Your task to perform on an android device: Open location settings Image 0: 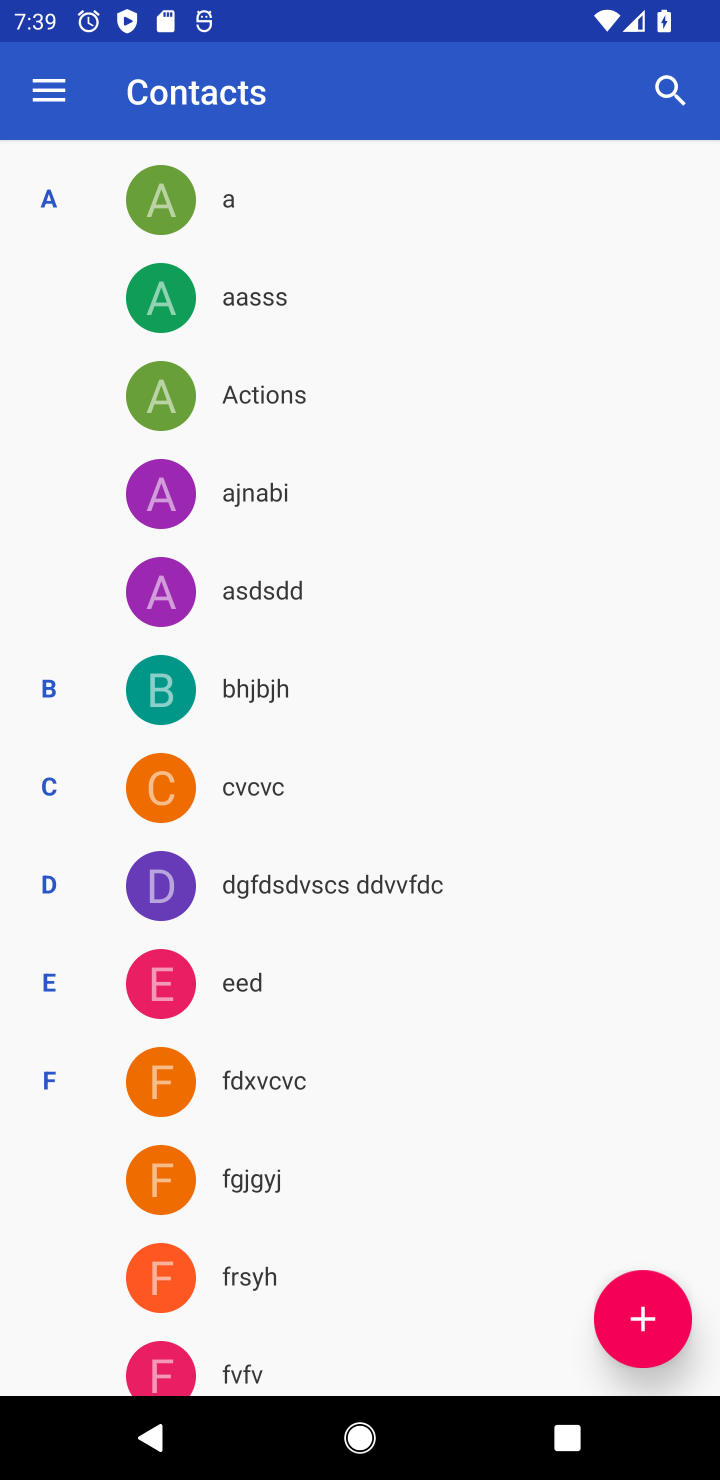
Step 0: press home button
Your task to perform on an android device: Open location settings Image 1: 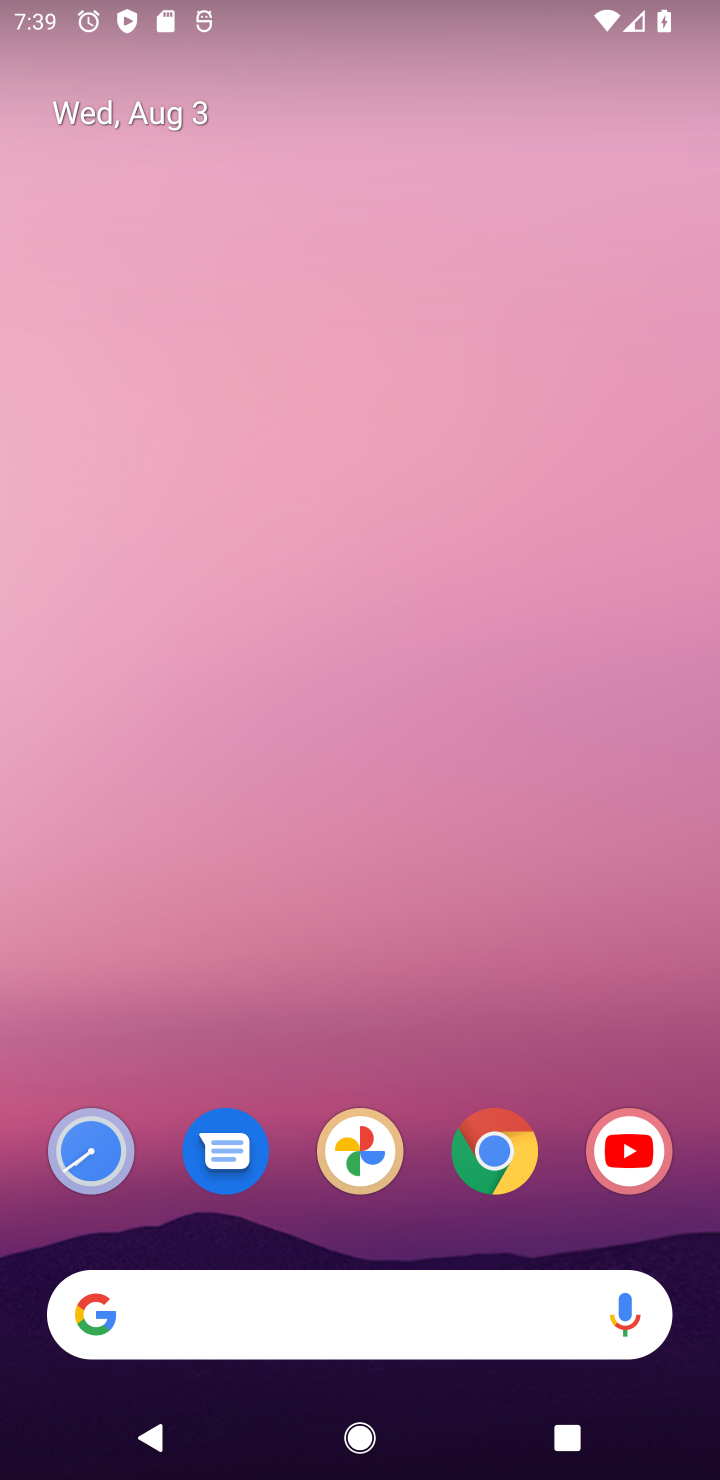
Step 1: drag from (419, 1013) to (585, 442)
Your task to perform on an android device: Open location settings Image 2: 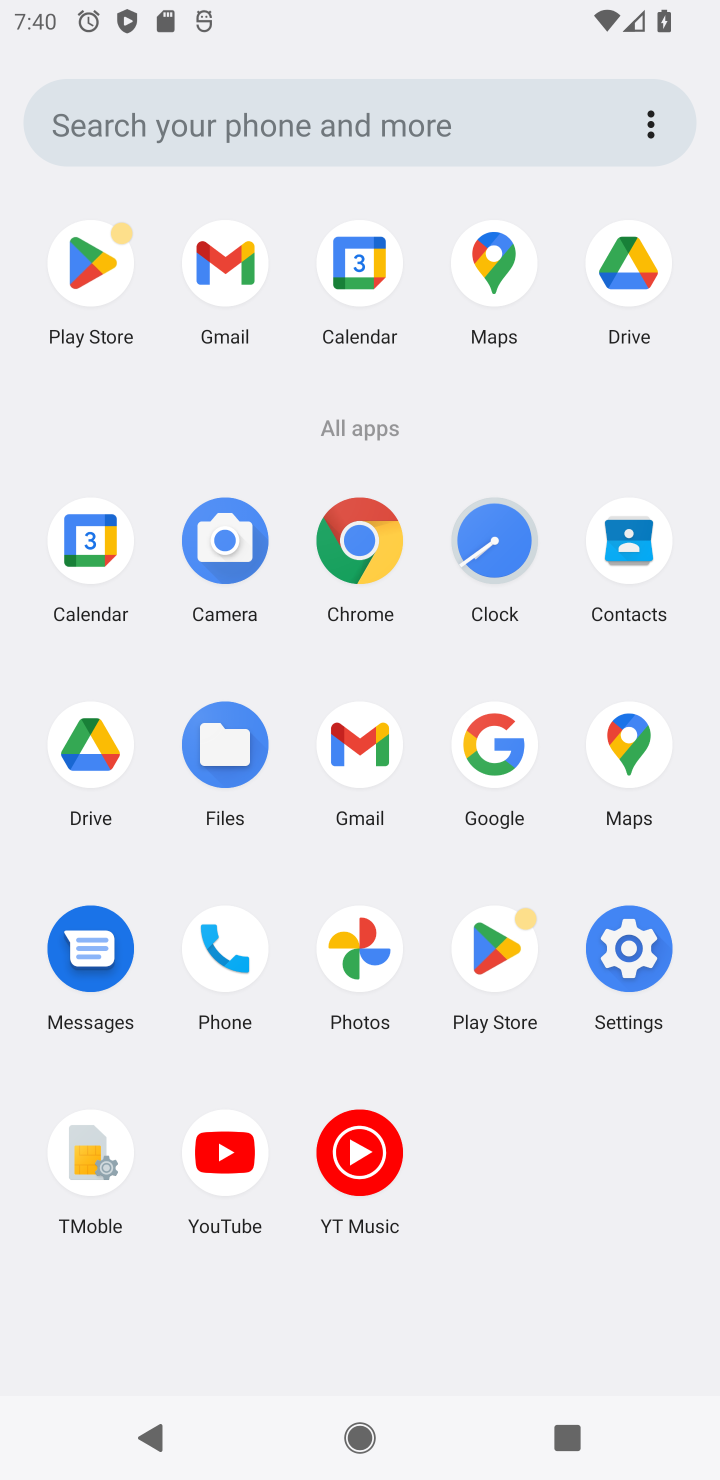
Step 2: click (640, 947)
Your task to perform on an android device: Open location settings Image 3: 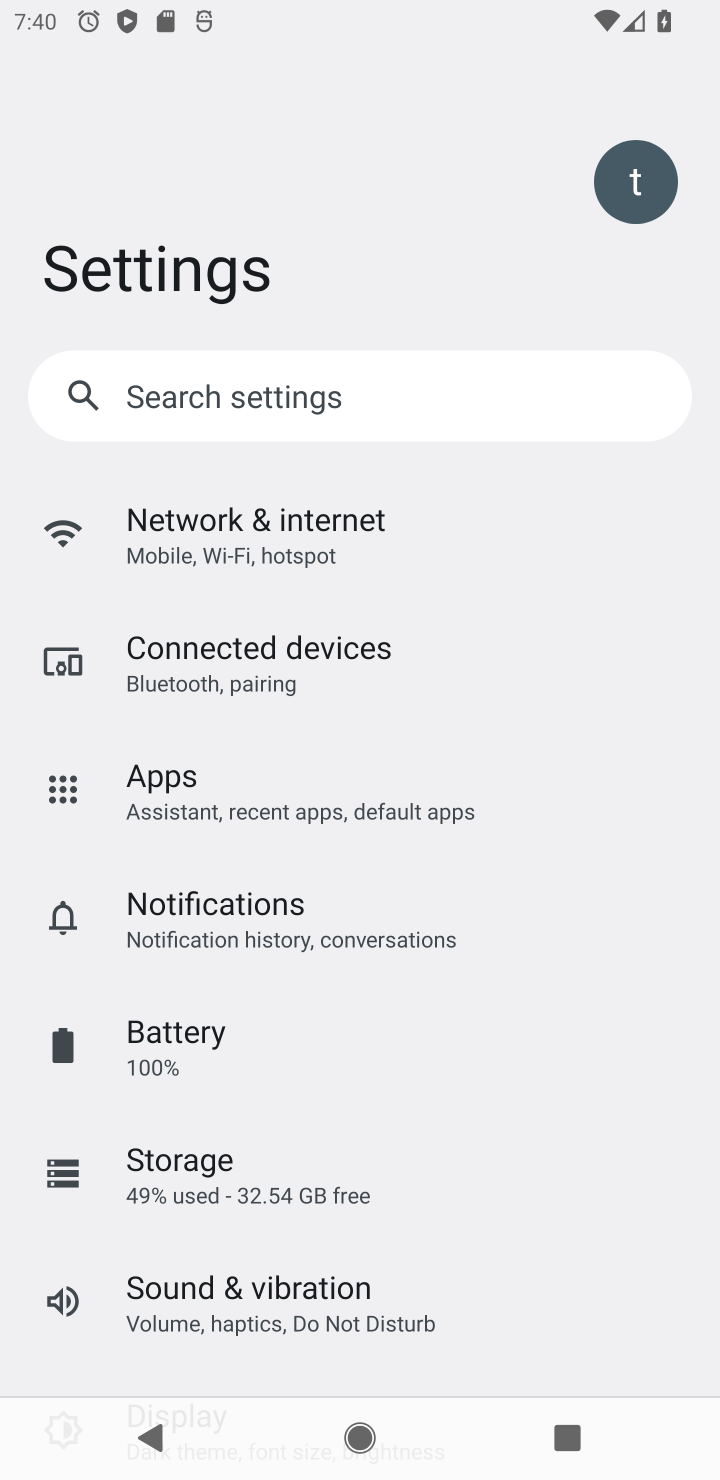
Step 3: drag from (386, 1228) to (670, 343)
Your task to perform on an android device: Open location settings Image 4: 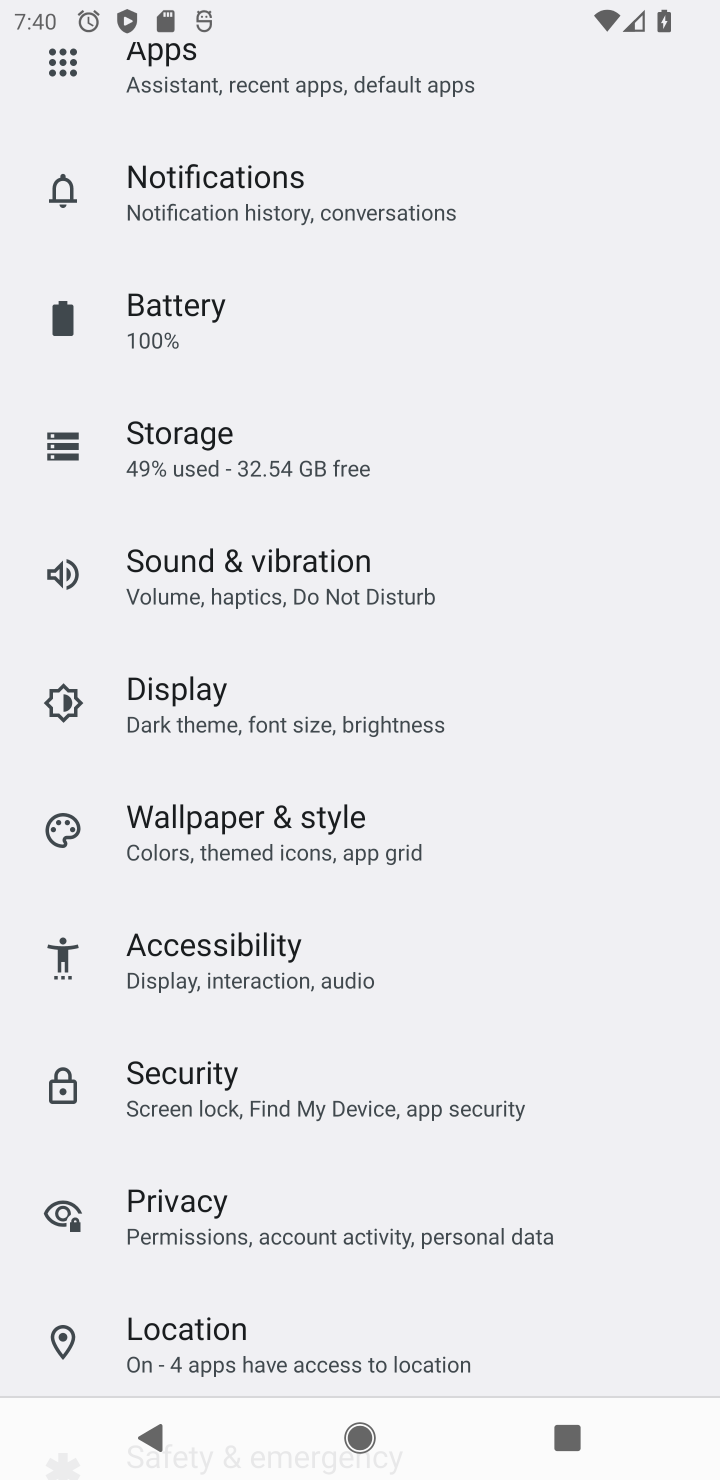
Step 4: click (295, 1352)
Your task to perform on an android device: Open location settings Image 5: 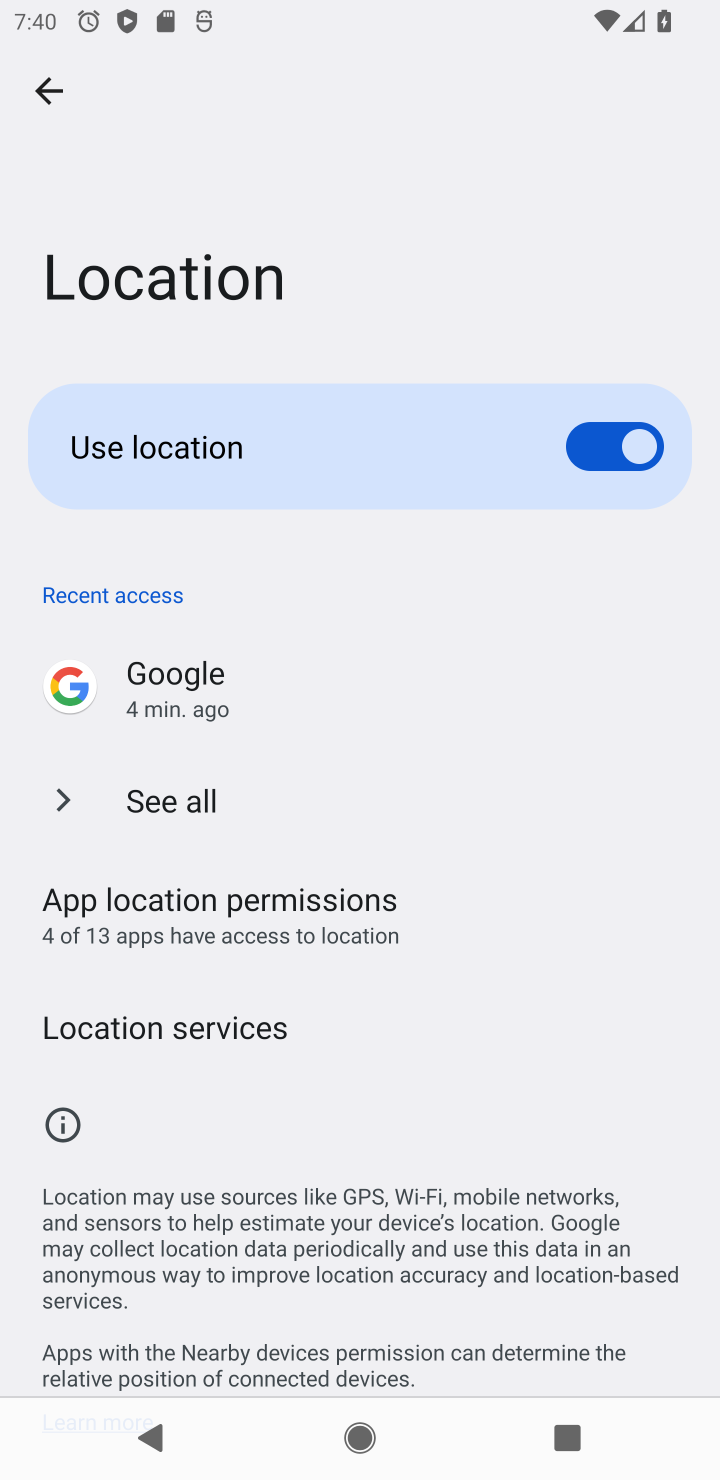
Step 5: task complete